Your task to perform on an android device: Open location settings Image 0: 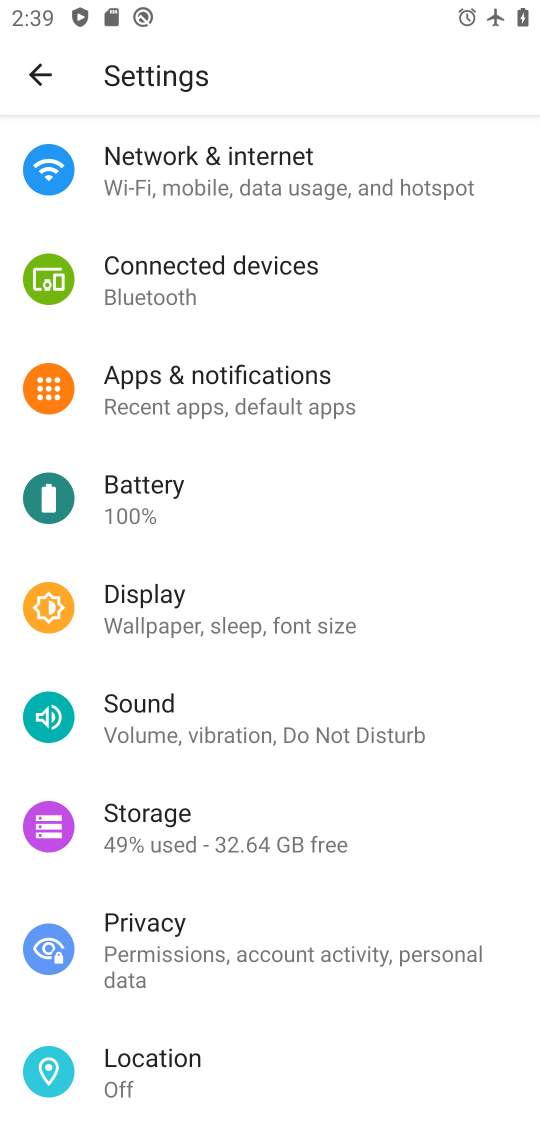
Step 0: drag from (283, 962) to (283, 347)
Your task to perform on an android device: Open location settings Image 1: 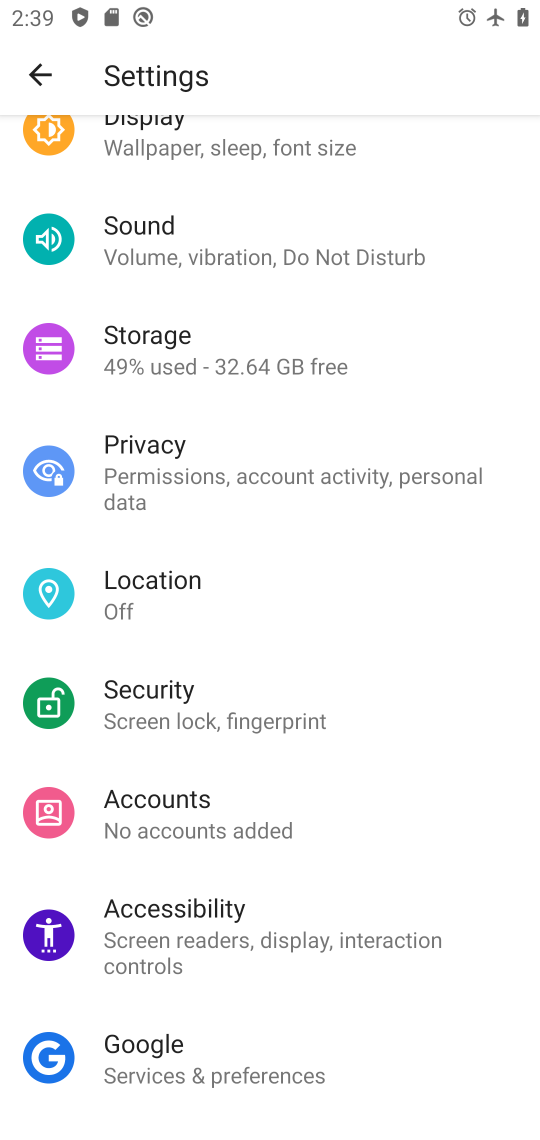
Step 1: click (166, 578)
Your task to perform on an android device: Open location settings Image 2: 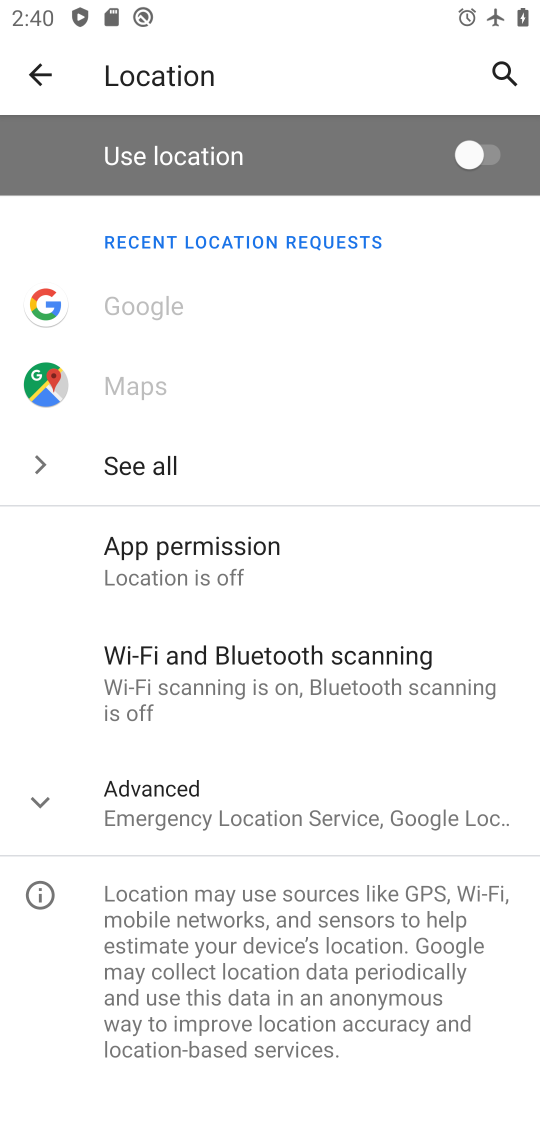
Step 2: drag from (302, 907) to (354, 514)
Your task to perform on an android device: Open location settings Image 3: 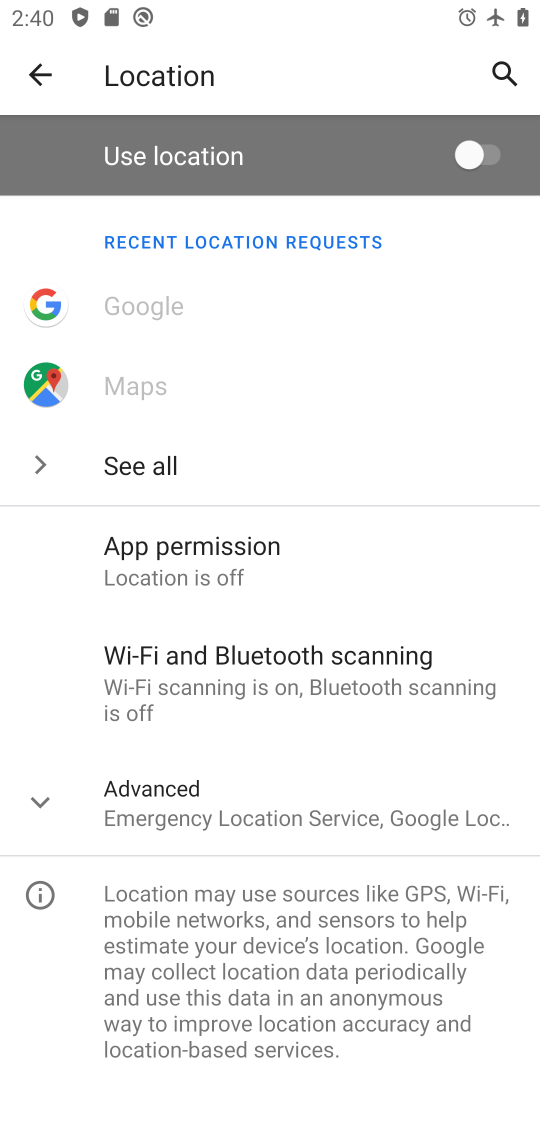
Step 3: click (158, 806)
Your task to perform on an android device: Open location settings Image 4: 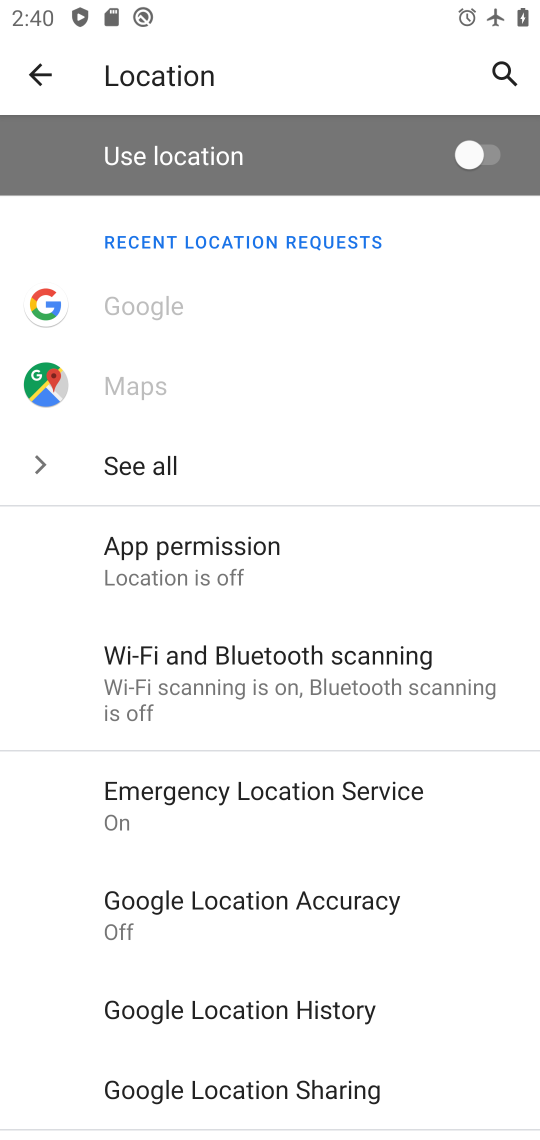
Step 4: task complete